Your task to perform on an android device: Search for a dining table on Crate & Barrel Image 0: 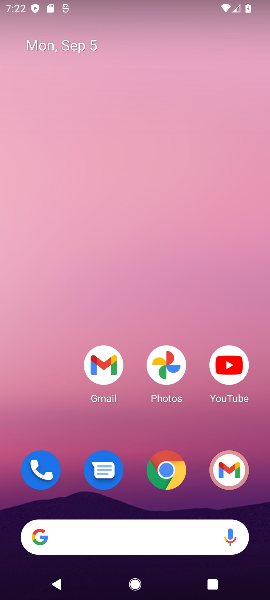
Step 0: click (111, 535)
Your task to perform on an android device: Search for a dining table on Crate & Barrel Image 1: 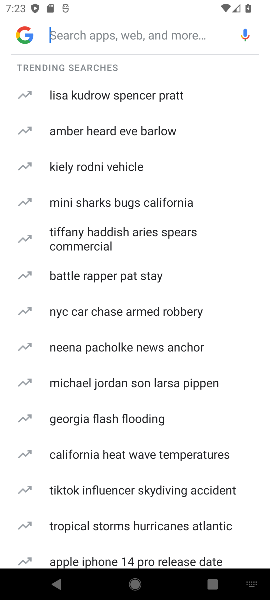
Step 1: type "crate & barrel"
Your task to perform on an android device: Search for a dining table on Crate & Barrel Image 2: 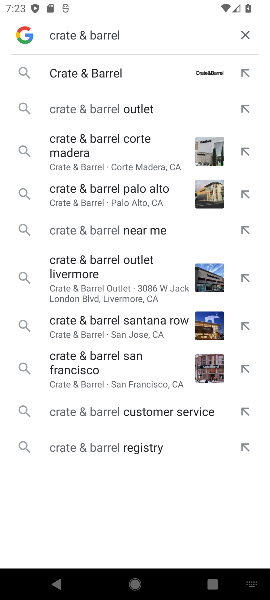
Step 2: click (66, 70)
Your task to perform on an android device: Search for a dining table on Crate & Barrel Image 3: 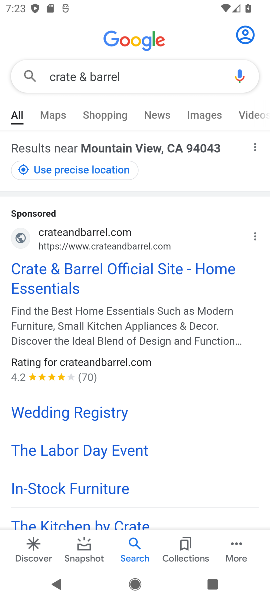
Step 3: click (64, 275)
Your task to perform on an android device: Search for a dining table on Crate & Barrel Image 4: 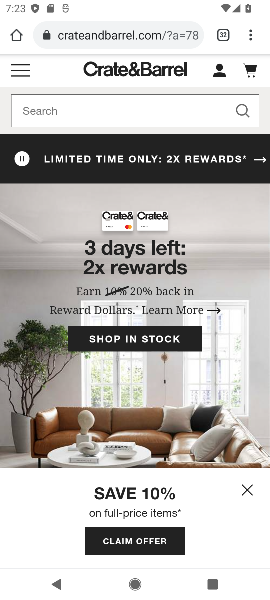
Step 4: click (141, 102)
Your task to perform on an android device: Search for a dining table on Crate & Barrel Image 5: 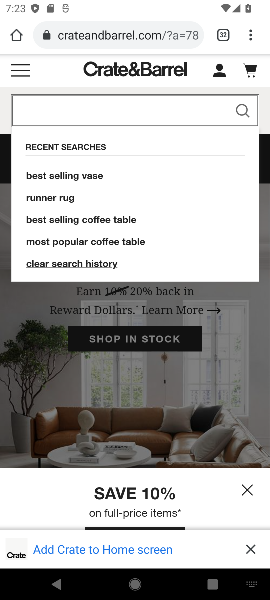
Step 5: type "dining table"
Your task to perform on an android device: Search for a dining table on Crate & Barrel Image 6: 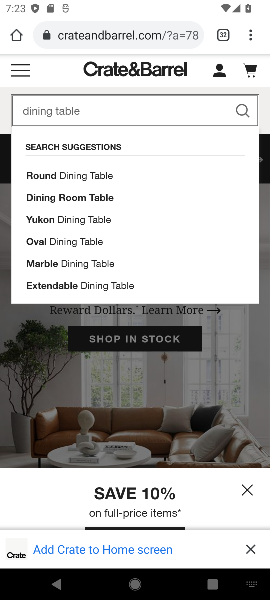
Step 6: click (241, 105)
Your task to perform on an android device: Search for a dining table on Crate & Barrel Image 7: 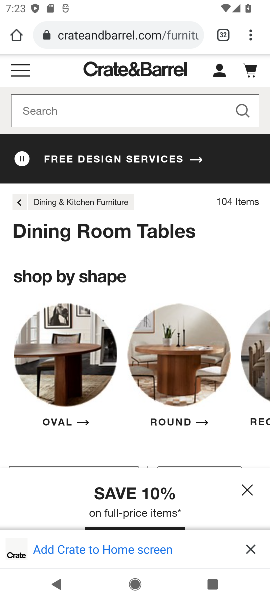
Step 7: click (247, 487)
Your task to perform on an android device: Search for a dining table on Crate & Barrel Image 8: 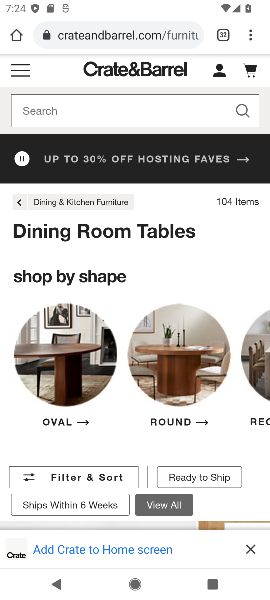
Step 8: task complete